Your task to perform on an android device: Go to calendar. Show me events next week Image 0: 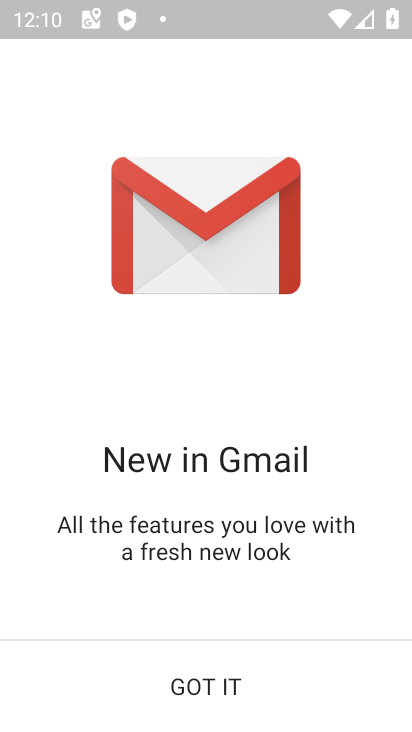
Step 0: press home button
Your task to perform on an android device: Go to calendar. Show me events next week Image 1: 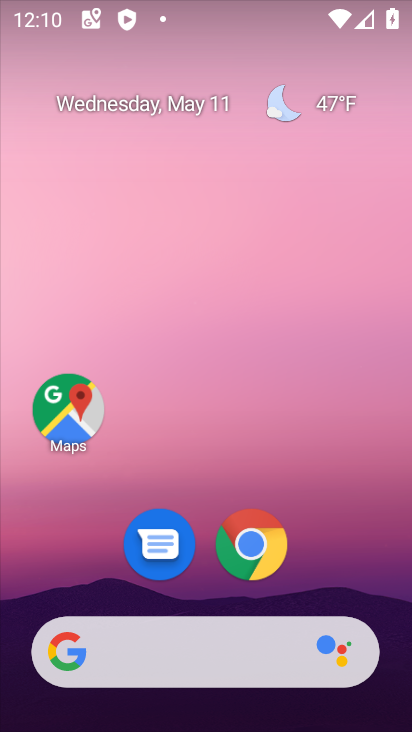
Step 1: drag from (380, 600) to (310, 87)
Your task to perform on an android device: Go to calendar. Show me events next week Image 2: 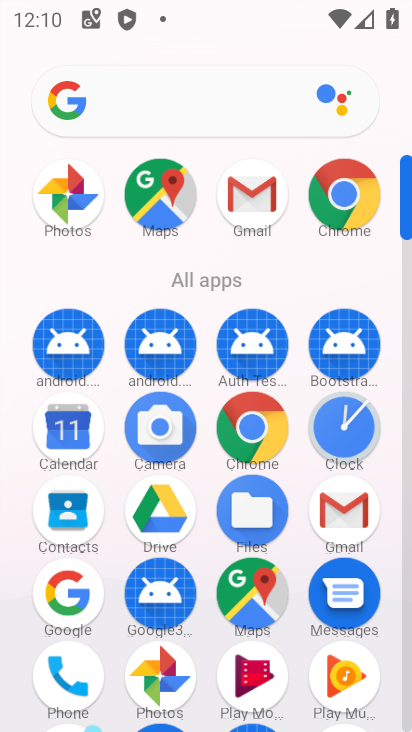
Step 2: click (408, 703)
Your task to perform on an android device: Go to calendar. Show me events next week Image 3: 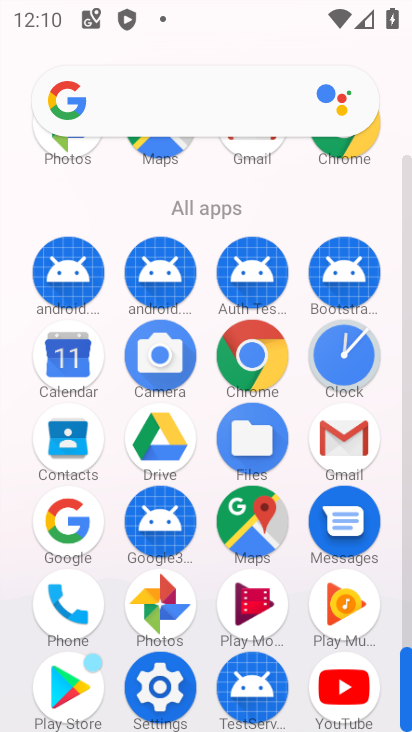
Step 3: click (73, 358)
Your task to perform on an android device: Go to calendar. Show me events next week Image 4: 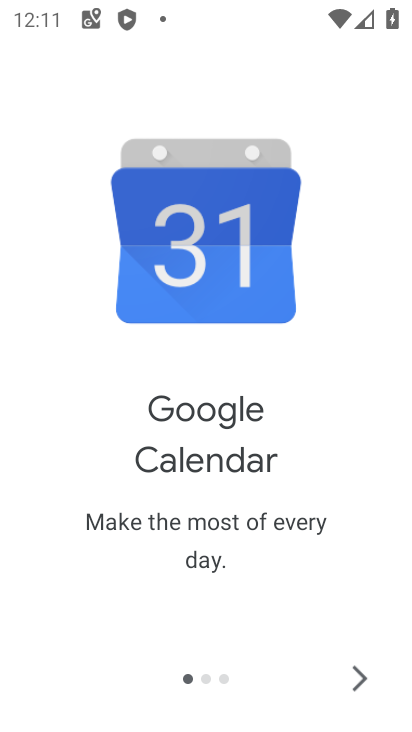
Step 4: click (356, 676)
Your task to perform on an android device: Go to calendar. Show me events next week Image 5: 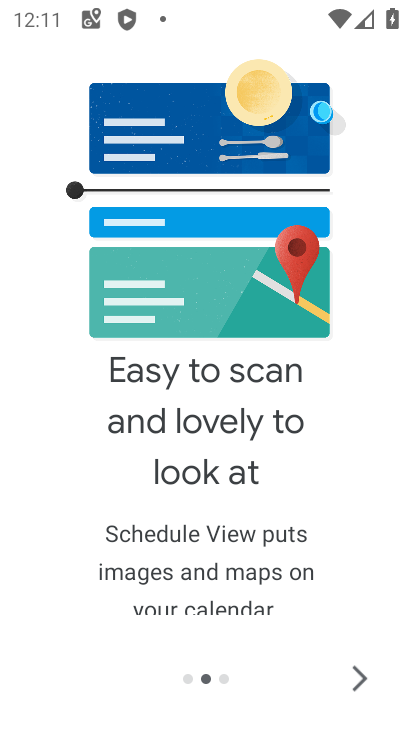
Step 5: click (357, 671)
Your task to perform on an android device: Go to calendar. Show me events next week Image 6: 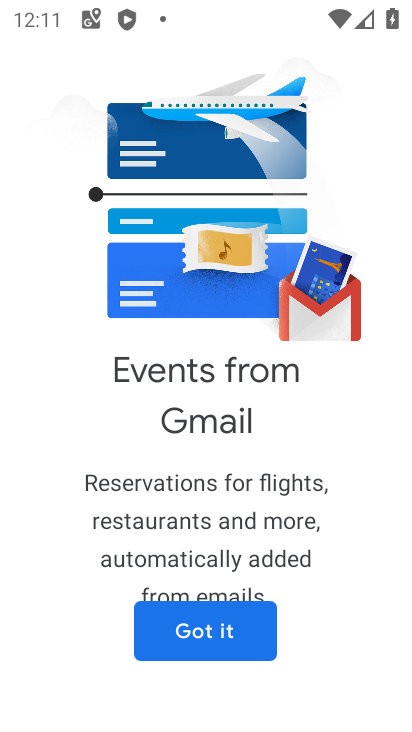
Step 6: click (188, 632)
Your task to perform on an android device: Go to calendar. Show me events next week Image 7: 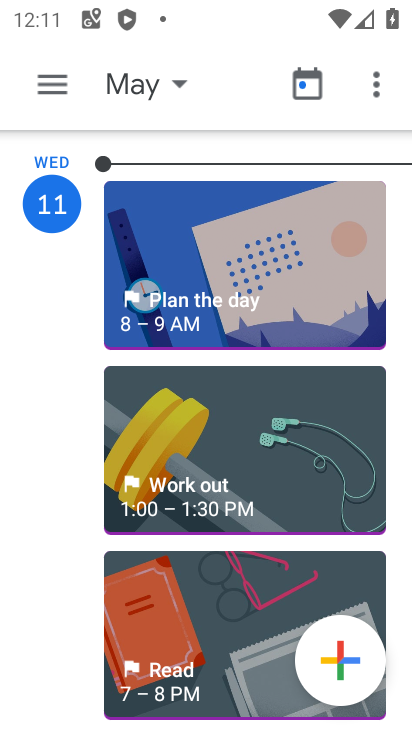
Step 7: click (54, 82)
Your task to perform on an android device: Go to calendar. Show me events next week Image 8: 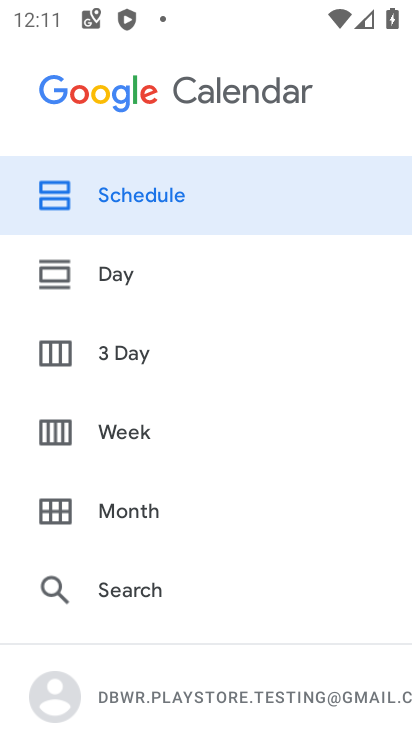
Step 8: click (123, 430)
Your task to perform on an android device: Go to calendar. Show me events next week Image 9: 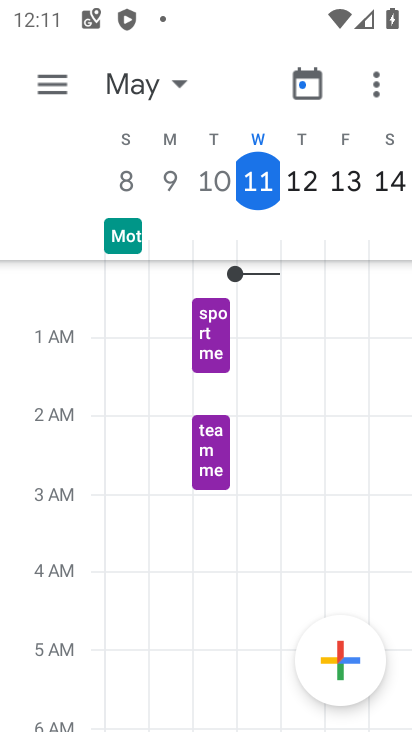
Step 9: click (176, 84)
Your task to perform on an android device: Go to calendar. Show me events next week Image 10: 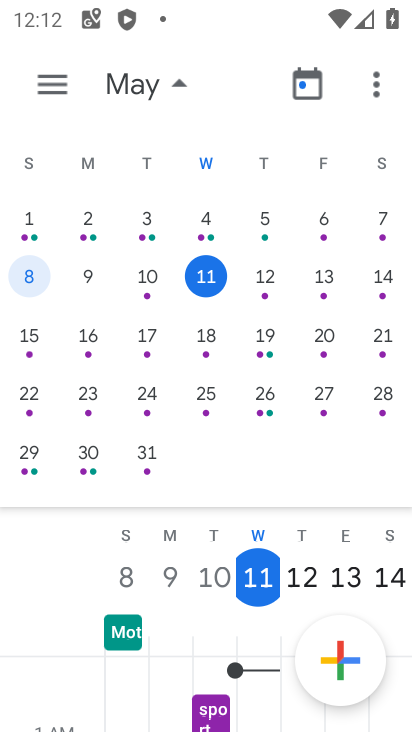
Step 10: click (32, 335)
Your task to perform on an android device: Go to calendar. Show me events next week Image 11: 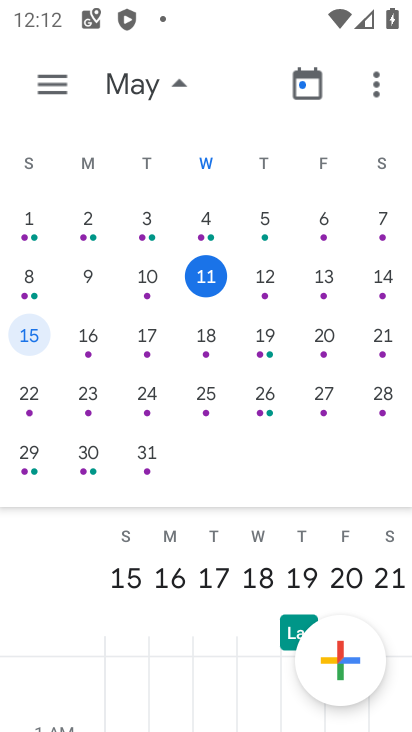
Step 11: task complete